Your task to perform on an android device: allow cookies in the chrome app Image 0: 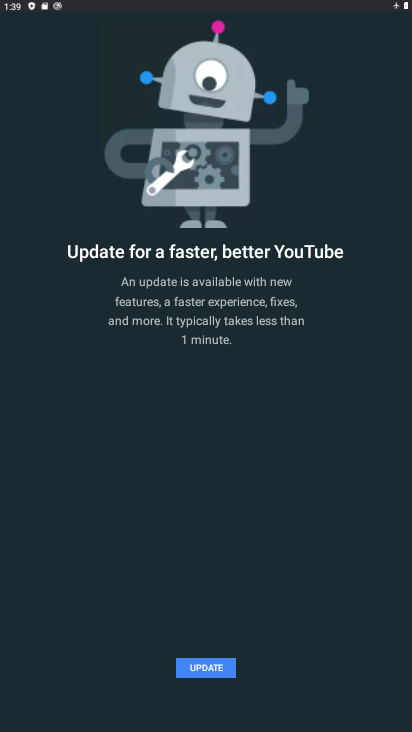
Step 0: press home button
Your task to perform on an android device: allow cookies in the chrome app Image 1: 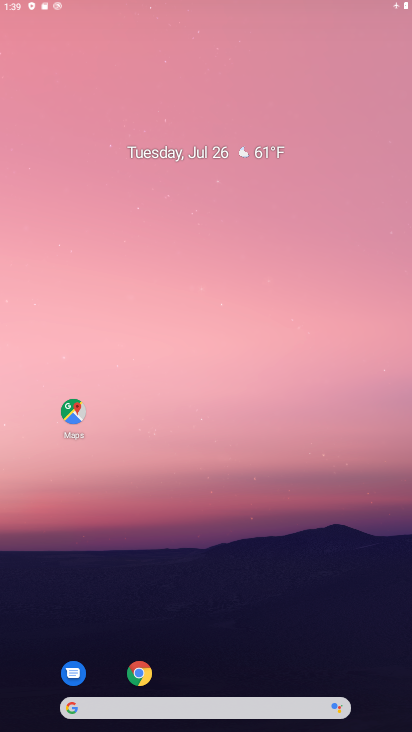
Step 1: drag from (226, 643) to (269, 128)
Your task to perform on an android device: allow cookies in the chrome app Image 2: 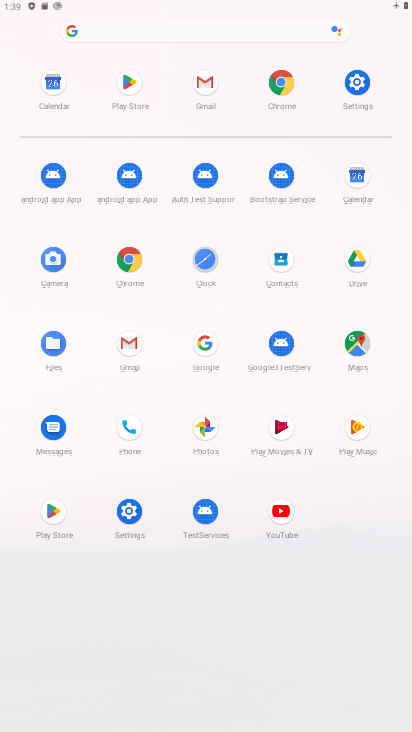
Step 2: click (130, 256)
Your task to perform on an android device: allow cookies in the chrome app Image 3: 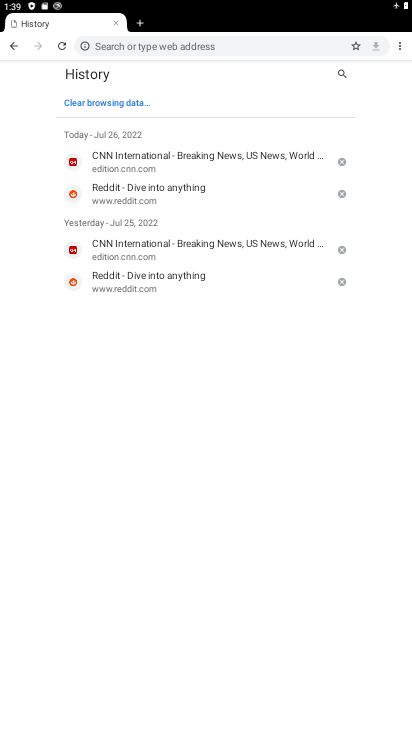
Step 3: drag from (163, 187) to (216, 510)
Your task to perform on an android device: allow cookies in the chrome app Image 4: 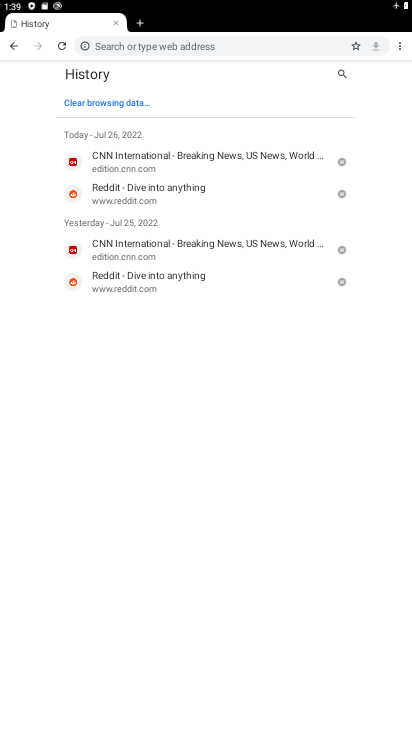
Step 4: drag from (398, 46) to (324, 208)
Your task to perform on an android device: allow cookies in the chrome app Image 5: 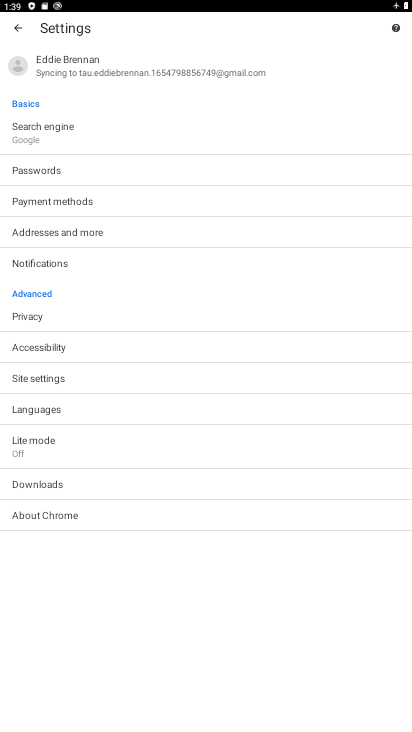
Step 5: click (42, 374)
Your task to perform on an android device: allow cookies in the chrome app Image 6: 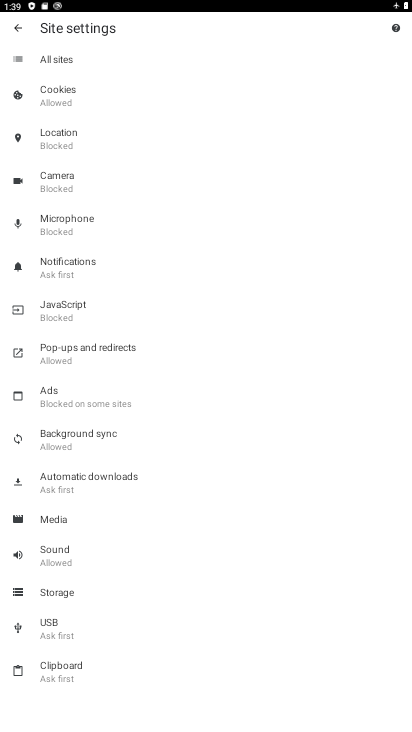
Step 6: click (72, 97)
Your task to perform on an android device: allow cookies in the chrome app Image 7: 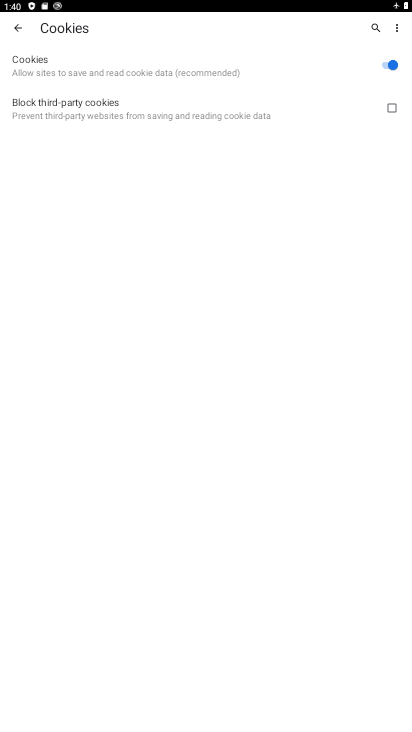
Step 7: task complete